Your task to perform on an android device: Open the phone app and click the voicemail tab. Image 0: 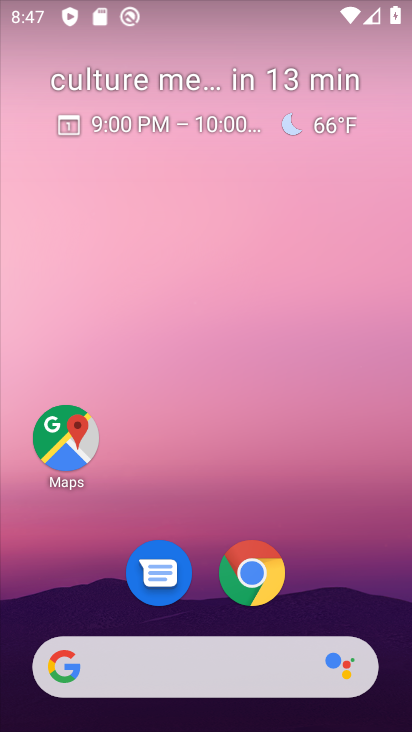
Step 0: drag from (221, 603) to (262, 52)
Your task to perform on an android device: Open the phone app and click the voicemail tab. Image 1: 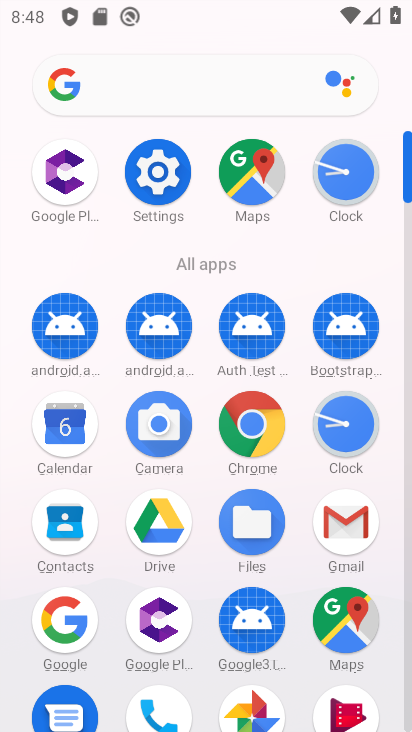
Step 1: click (148, 702)
Your task to perform on an android device: Open the phone app and click the voicemail tab. Image 2: 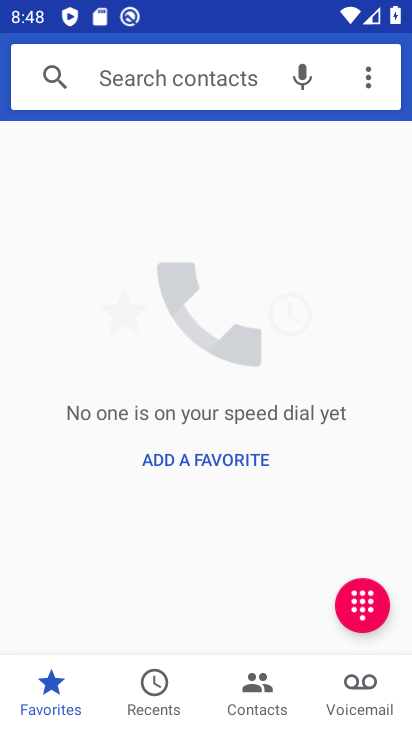
Step 2: click (340, 686)
Your task to perform on an android device: Open the phone app and click the voicemail tab. Image 3: 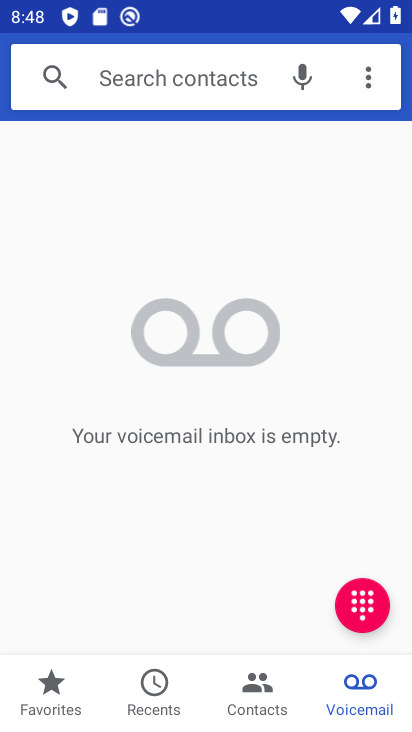
Step 3: task complete